Your task to perform on an android device: Open Chrome and go to settings Image 0: 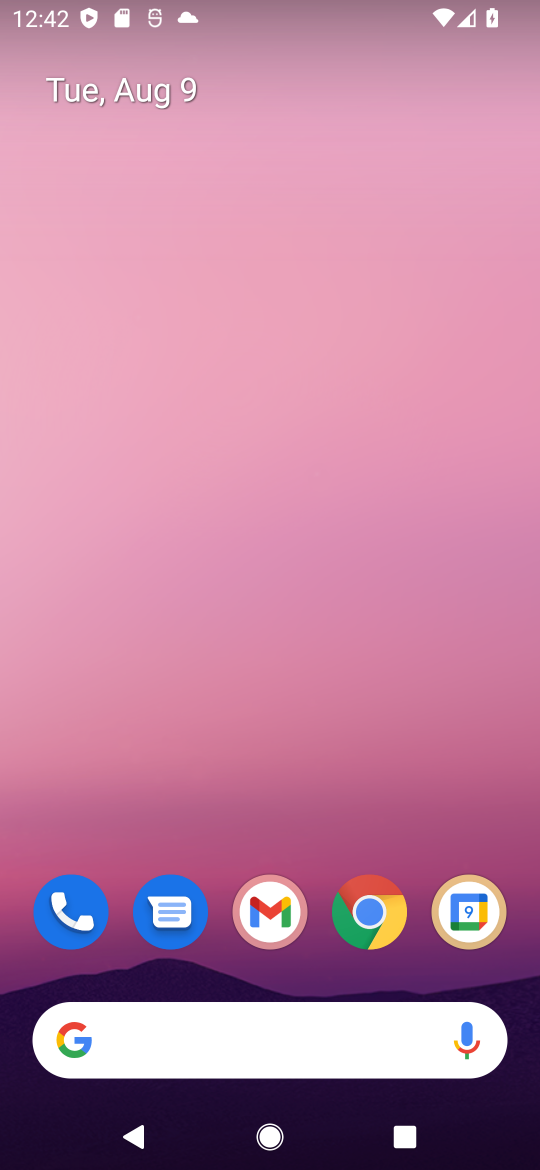
Step 0: click (362, 910)
Your task to perform on an android device: Open Chrome and go to settings Image 1: 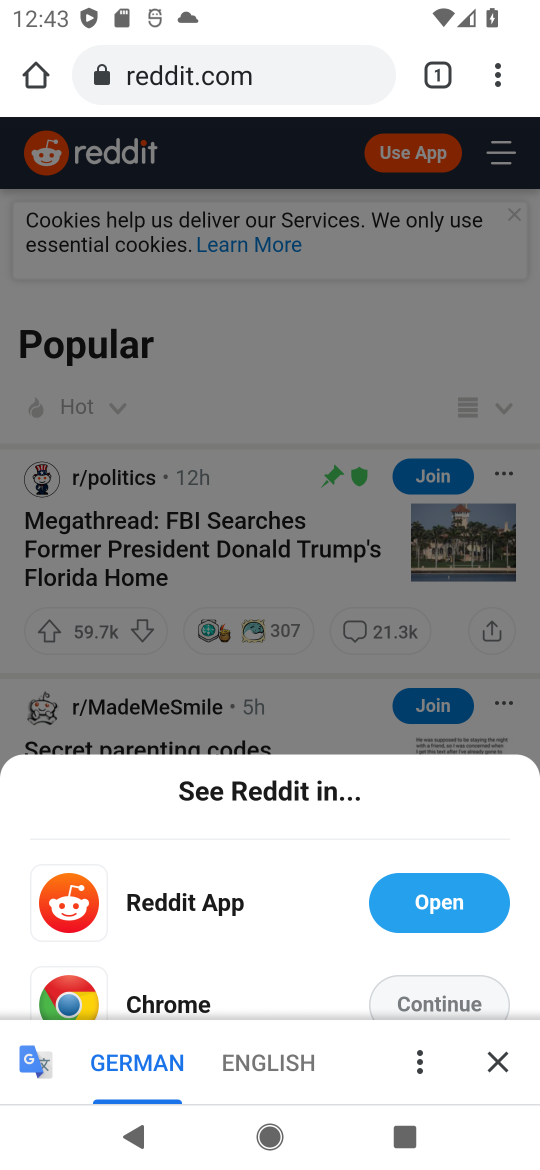
Step 1: click (488, 64)
Your task to perform on an android device: Open Chrome and go to settings Image 2: 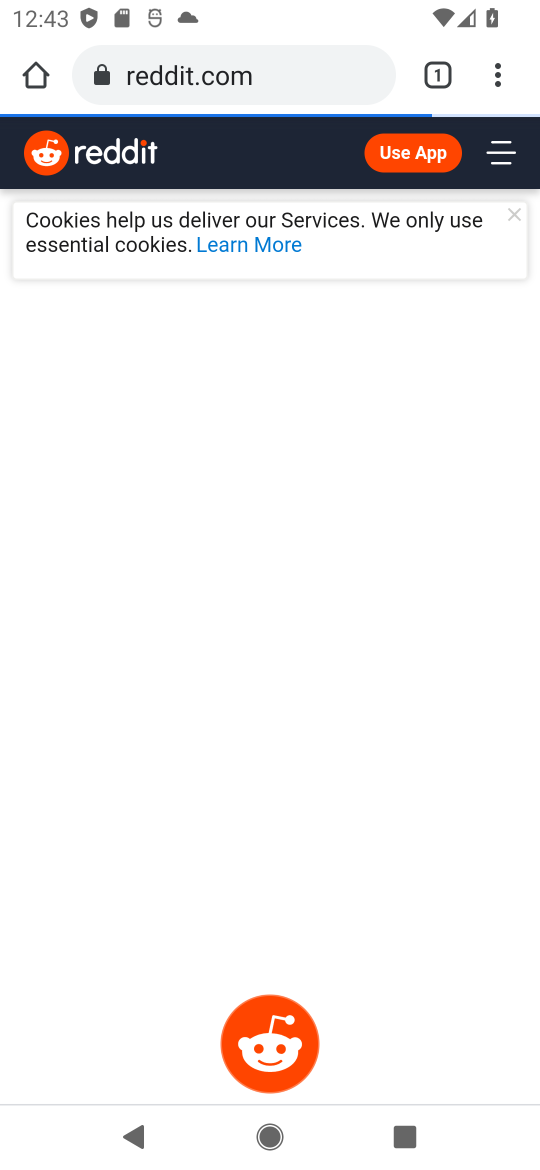
Step 2: click (494, 85)
Your task to perform on an android device: Open Chrome and go to settings Image 3: 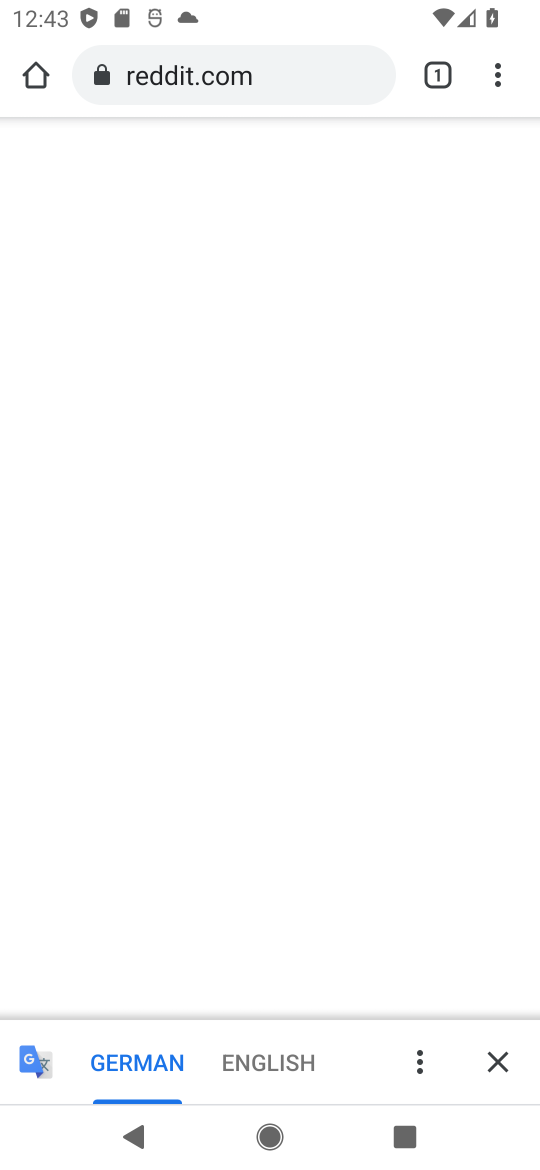
Step 3: click (497, 77)
Your task to perform on an android device: Open Chrome and go to settings Image 4: 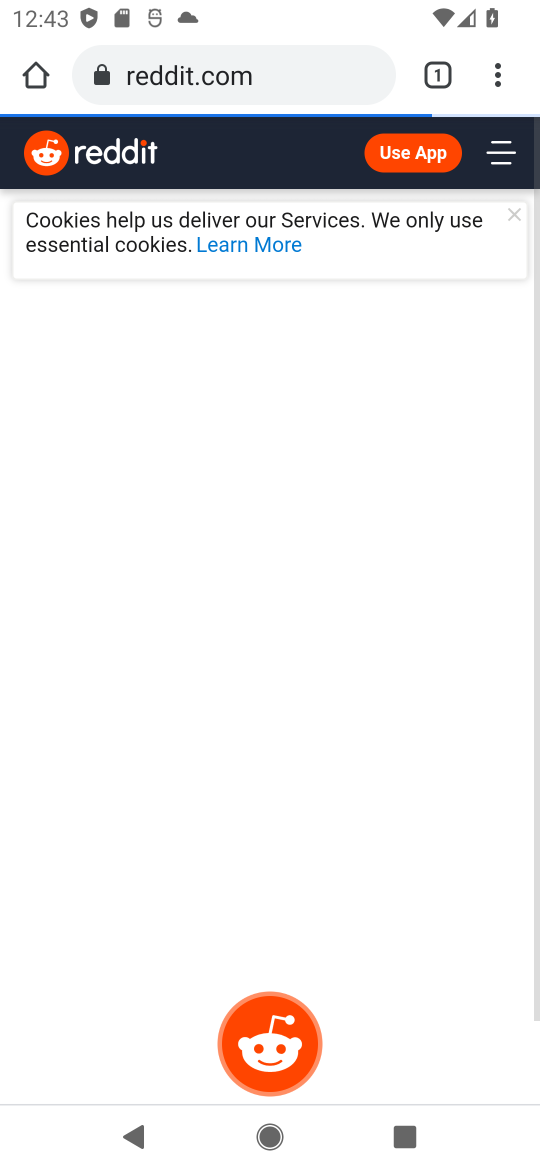
Step 4: click (498, 73)
Your task to perform on an android device: Open Chrome and go to settings Image 5: 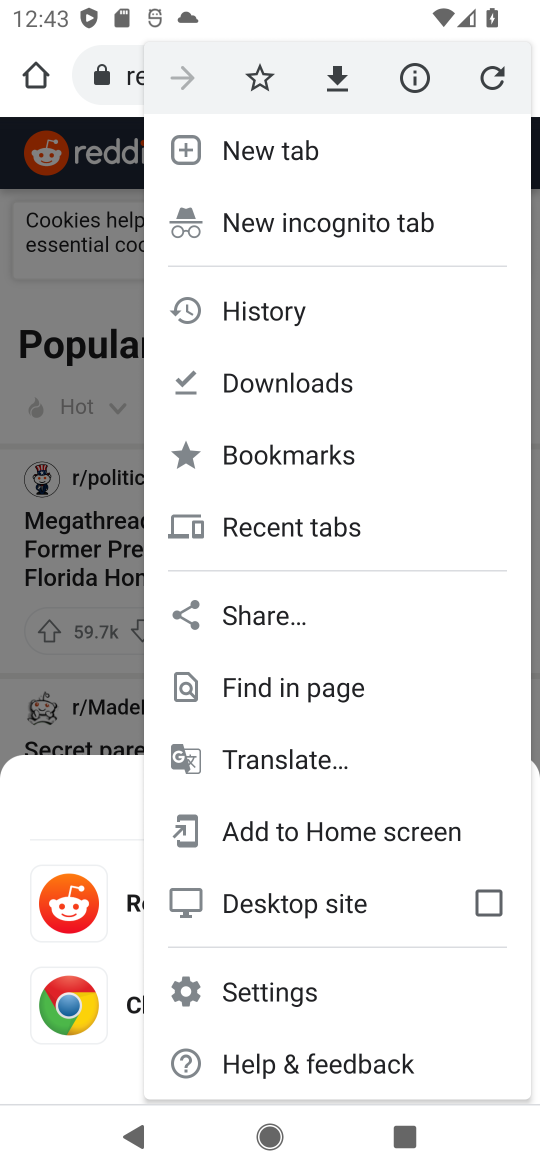
Step 5: click (305, 975)
Your task to perform on an android device: Open Chrome and go to settings Image 6: 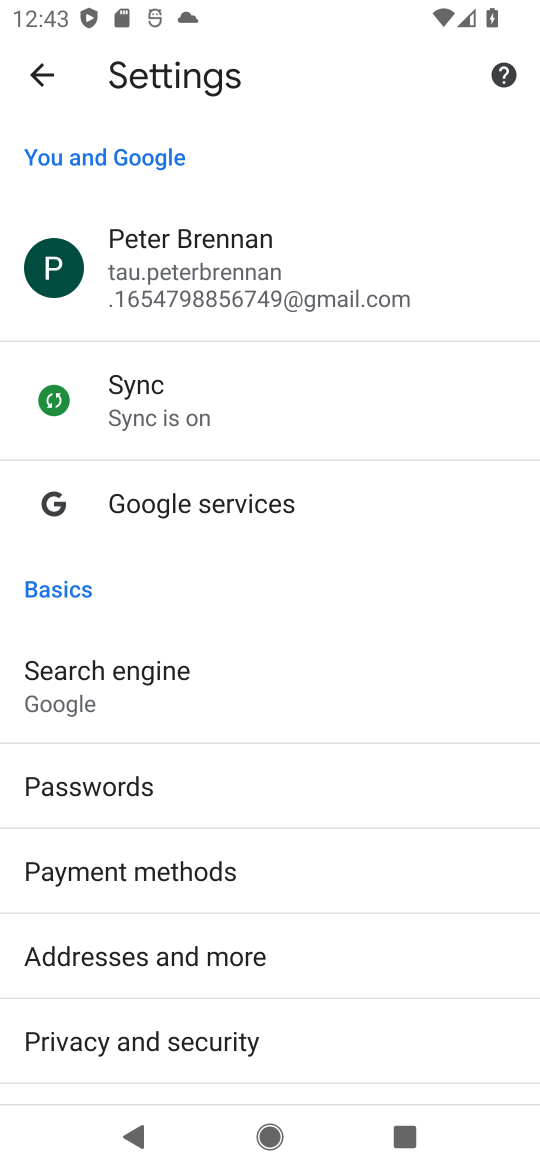
Step 6: task complete